Your task to perform on an android device: delete the emails in spam in the gmail app Image 0: 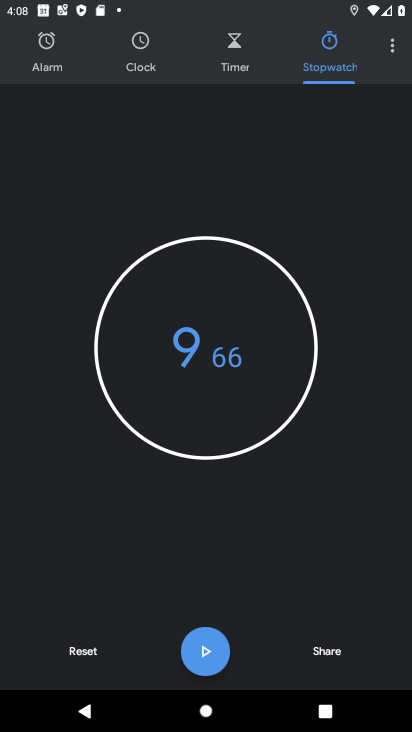
Step 0: press home button
Your task to perform on an android device: delete the emails in spam in the gmail app Image 1: 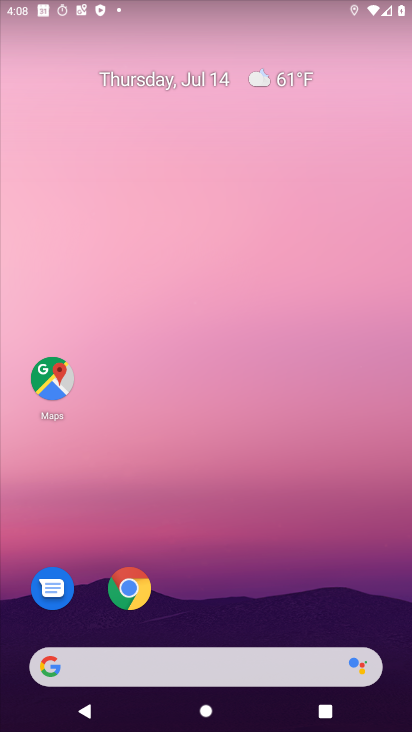
Step 1: drag from (183, 675) to (198, 256)
Your task to perform on an android device: delete the emails in spam in the gmail app Image 2: 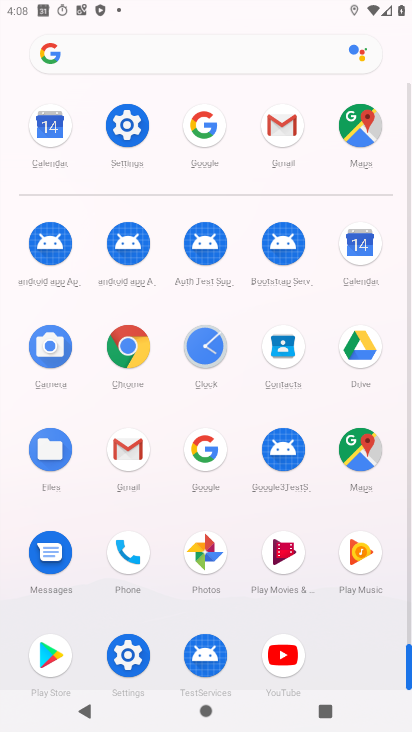
Step 2: click (281, 124)
Your task to perform on an android device: delete the emails in spam in the gmail app Image 3: 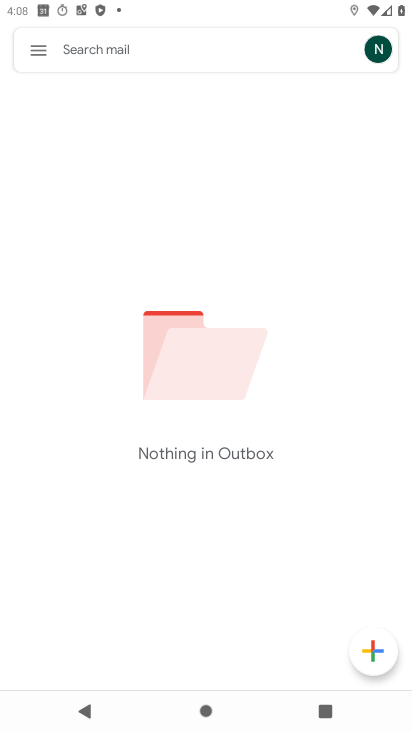
Step 3: click (35, 52)
Your task to perform on an android device: delete the emails in spam in the gmail app Image 4: 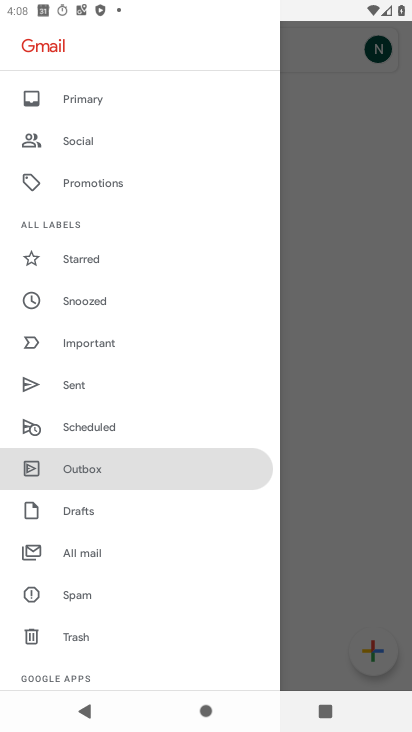
Step 4: click (65, 595)
Your task to perform on an android device: delete the emails in spam in the gmail app Image 5: 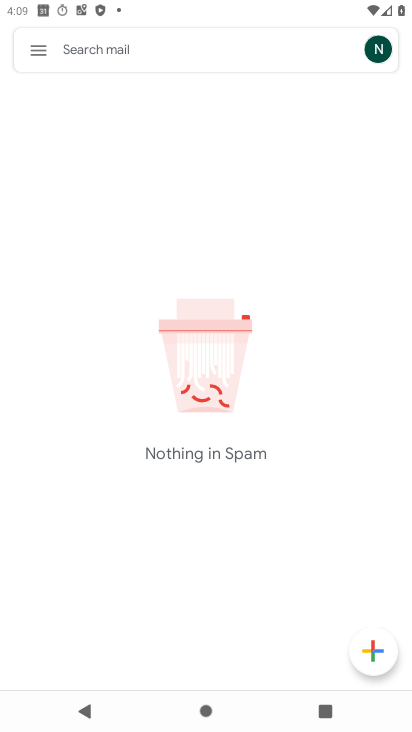
Step 5: task complete